Your task to perform on an android device: Open my contact list Image 0: 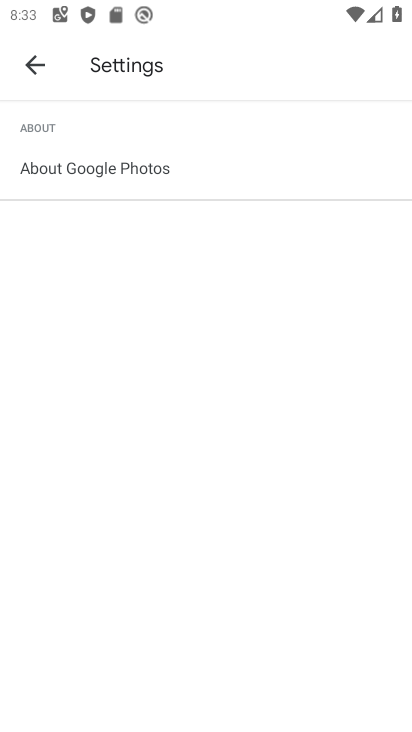
Step 0: press back button
Your task to perform on an android device: Open my contact list Image 1: 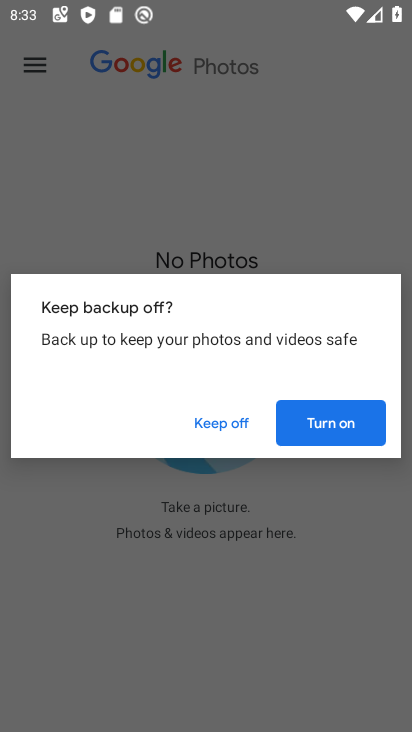
Step 1: press home button
Your task to perform on an android device: Open my contact list Image 2: 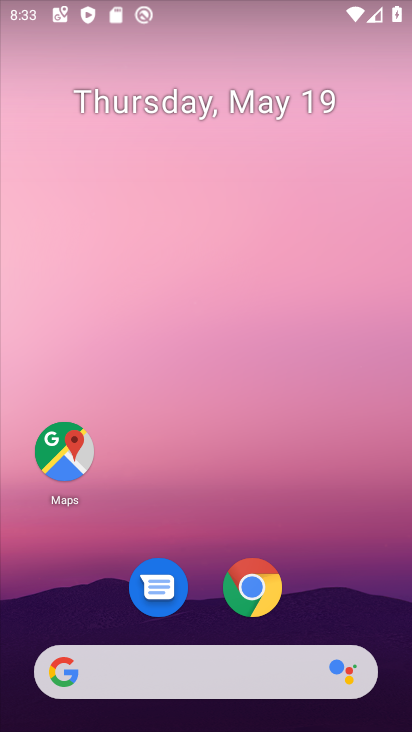
Step 2: drag from (283, 574) to (263, 32)
Your task to perform on an android device: Open my contact list Image 3: 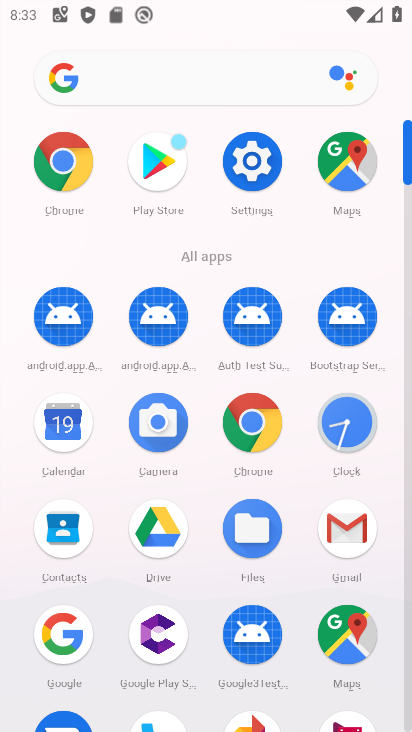
Step 3: drag from (17, 502) to (31, 249)
Your task to perform on an android device: Open my contact list Image 4: 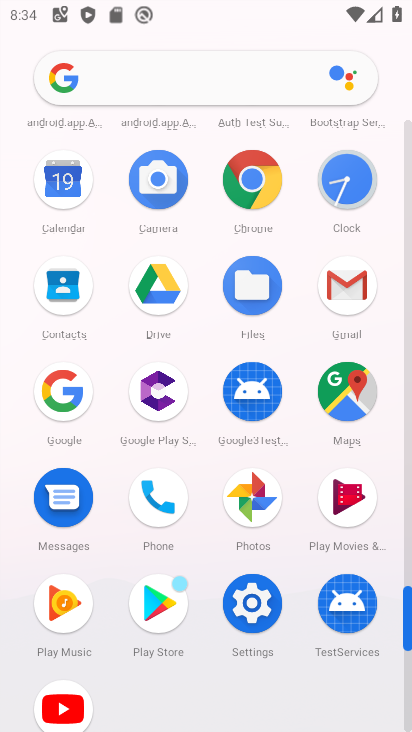
Step 4: click (156, 490)
Your task to perform on an android device: Open my contact list Image 5: 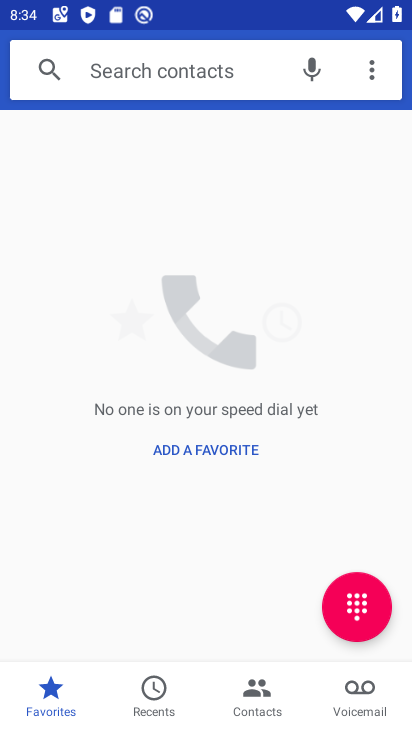
Step 5: click (271, 695)
Your task to perform on an android device: Open my contact list Image 6: 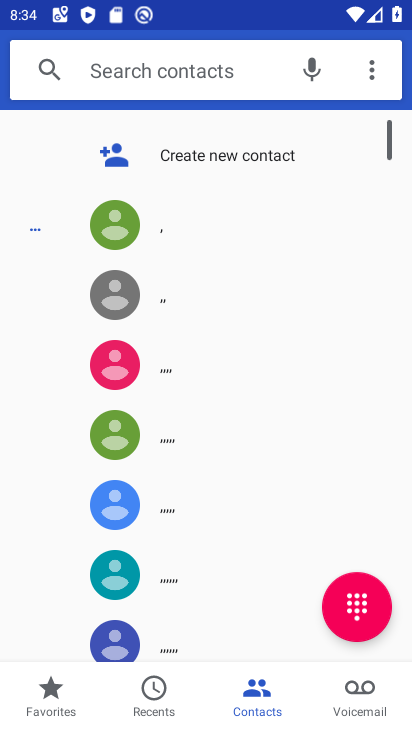
Step 6: task complete